Your task to perform on an android device: clear history in the chrome app Image 0: 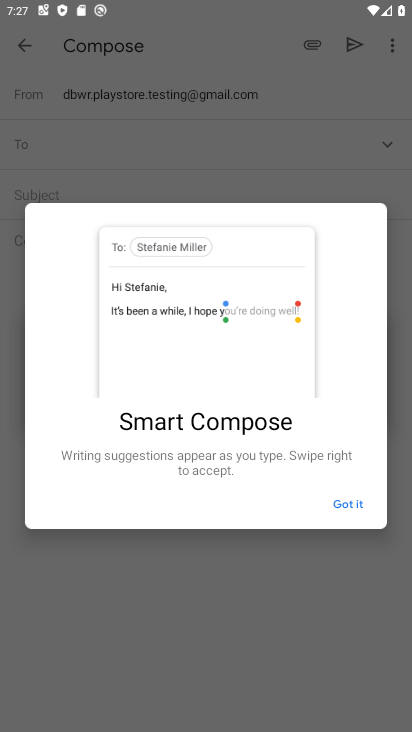
Step 0: press home button
Your task to perform on an android device: clear history in the chrome app Image 1: 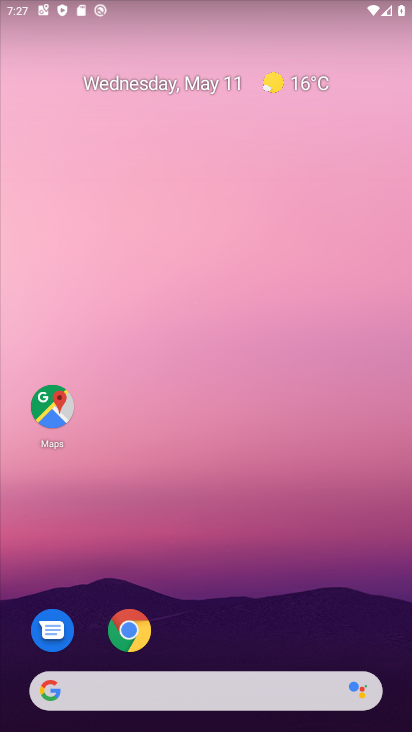
Step 1: drag from (357, 488) to (408, 6)
Your task to perform on an android device: clear history in the chrome app Image 2: 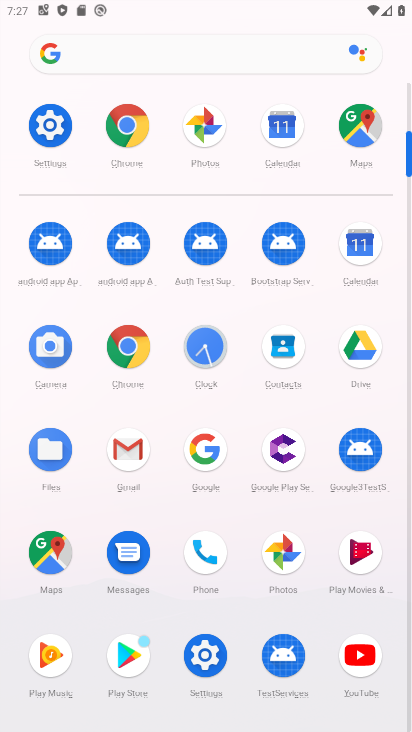
Step 2: click (144, 142)
Your task to perform on an android device: clear history in the chrome app Image 3: 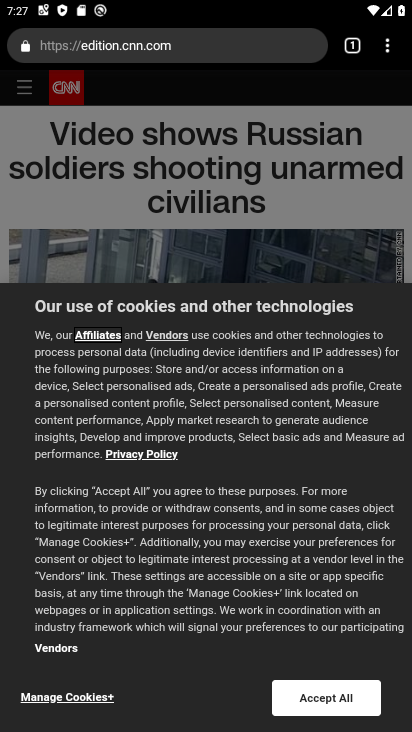
Step 3: drag from (395, 47) to (217, 268)
Your task to perform on an android device: clear history in the chrome app Image 4: 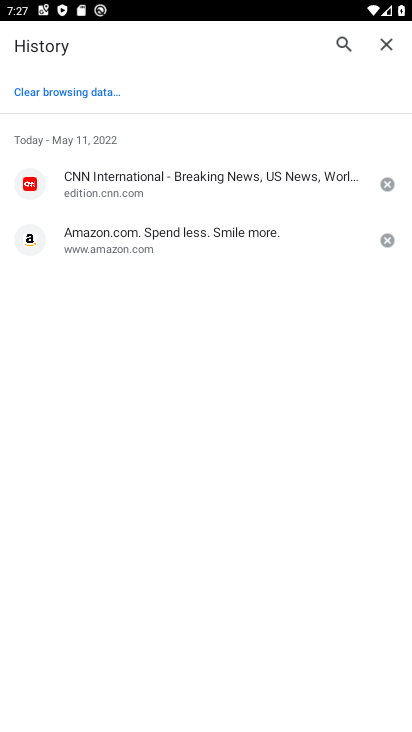
Step 4: click (83, 93)
Your task to perform on an android device: clear history in the chrome app Image 5: 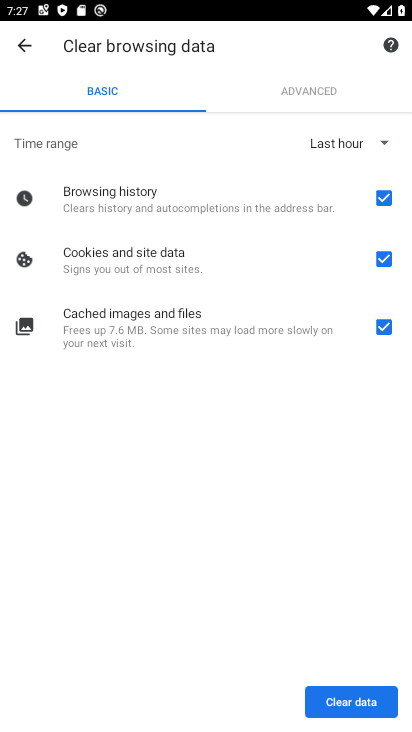
Step 5: click (371, 710)
Your task to perform on an android device: clear history in the chrome app Image 6: 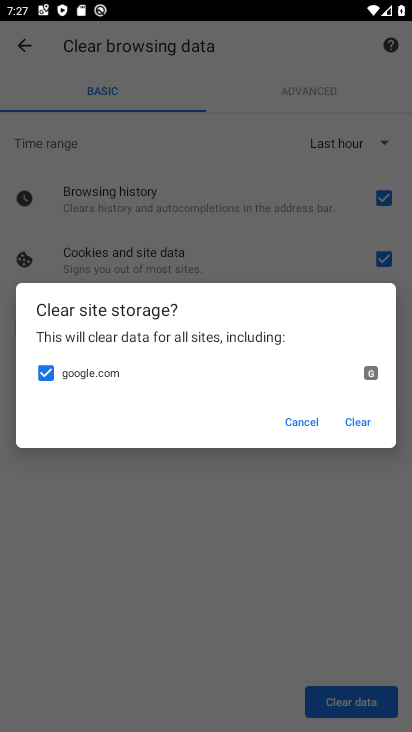
Step 6: click (358, 412)
Your task to perform on an android device: clear history in the chrome app Image 7: 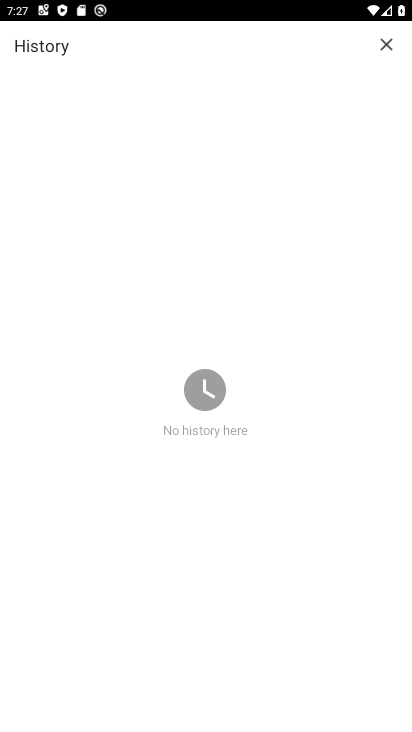
Step 7: task complete